Your task to perform on an android device: add a label to a message in the gmail app Image 0: 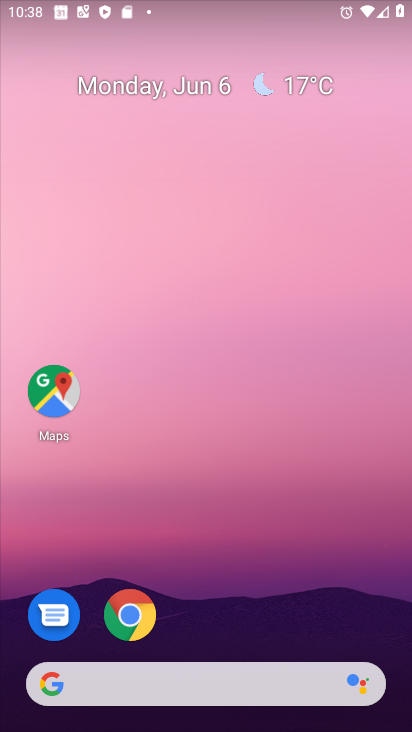
Step 0: press home button
Your task to perform on an android device: add a label to a message in the gmail app Image 1: 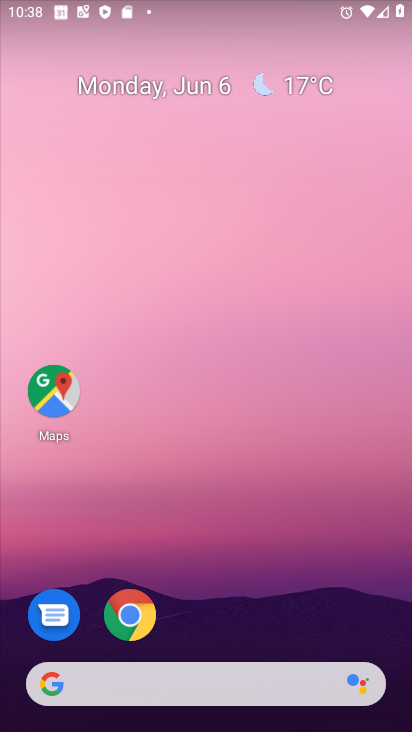
Step 1: drag from (205, 645) to (208, 139)
Your task to perform on an android device: add a label to a message in the gmail app Image 2: 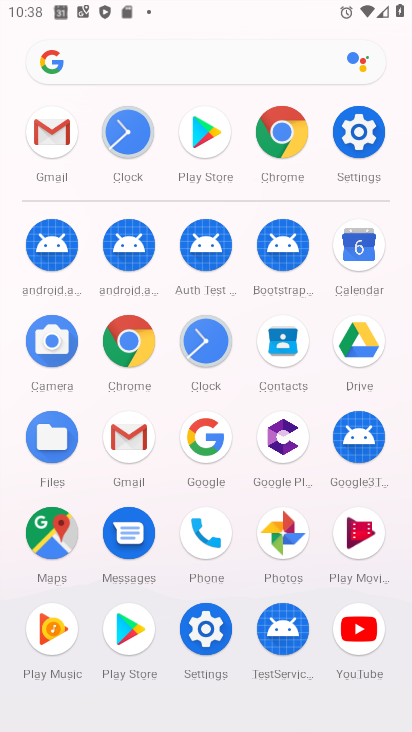
Step 2: click (127, 434)
Your task to perform on an android device: add a label to a message in the gmail app Image 3: 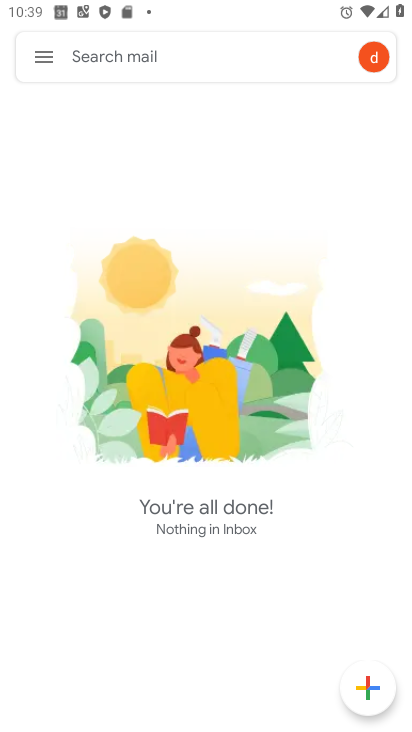
Step 3: task complete